Your task to perform on an android device: Search for Italian restaurants on Maps Image 0: 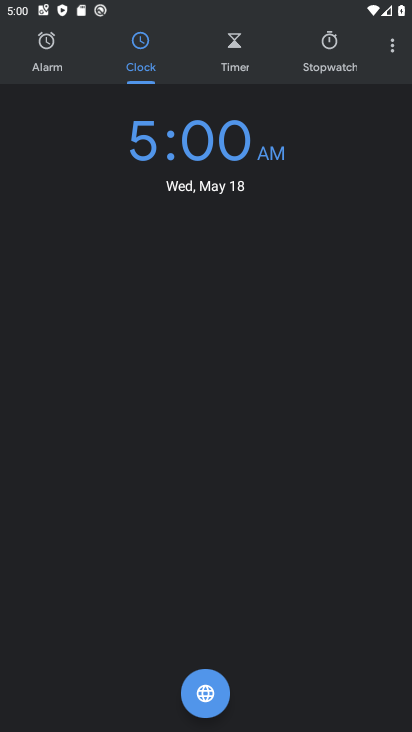
Step 0: press home button
Your task to perform on an android device: Search for Italian restaurants on Maps Image 1: 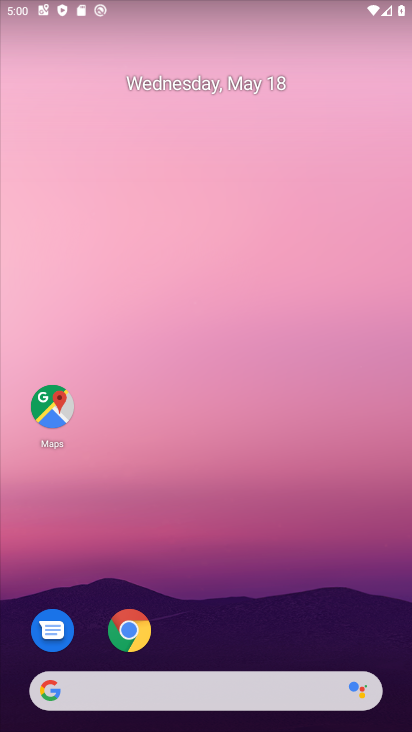
Step 1: drag from (192, 675) to (211, 260)
Your task to perform on an android device: Search for Italian restaurants on Maps Image 2: 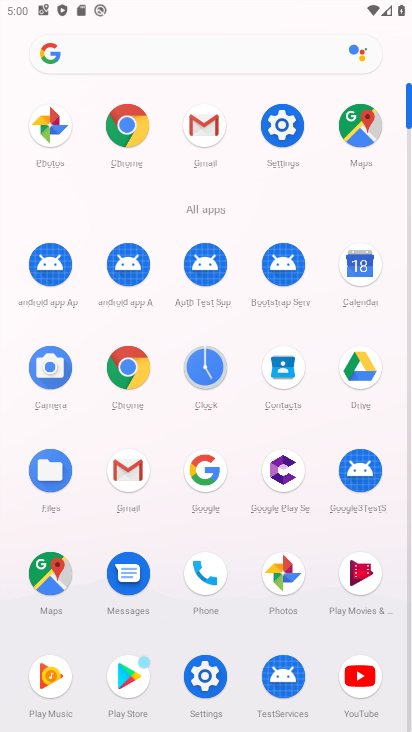
Step 2: click (50, 581)
Your task to perform on an android device: Search for Italian restaurants on Maps Image 3: 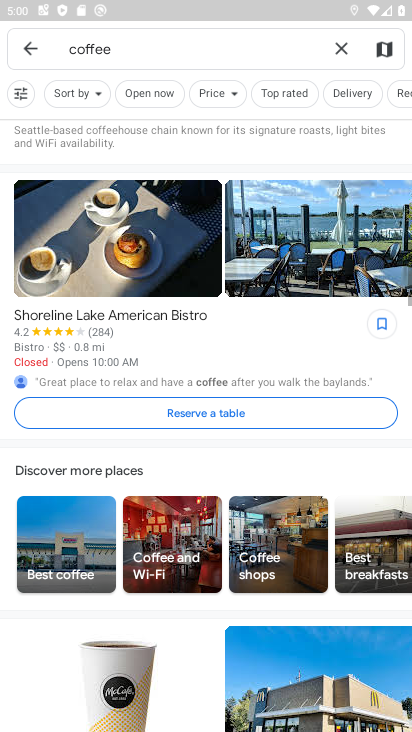
Step 3: click (336, 50)
Your task to perform on an android device: Search for Italian restaurants on Maps Image 4: 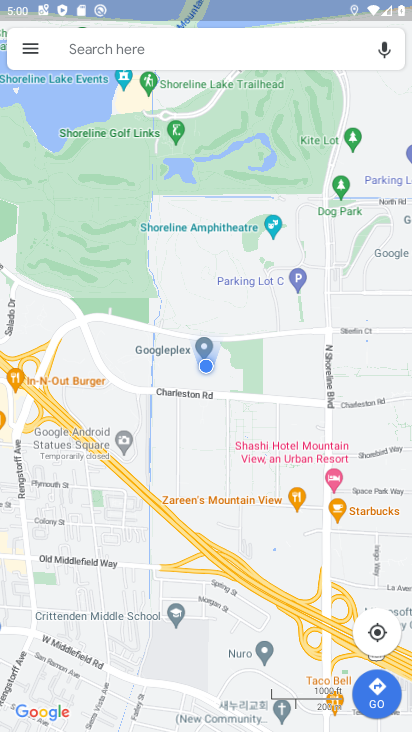
Step 4: click (117, 46)
Your task to perform on an android device: Search for Italian restaurants on Maps Image 5: 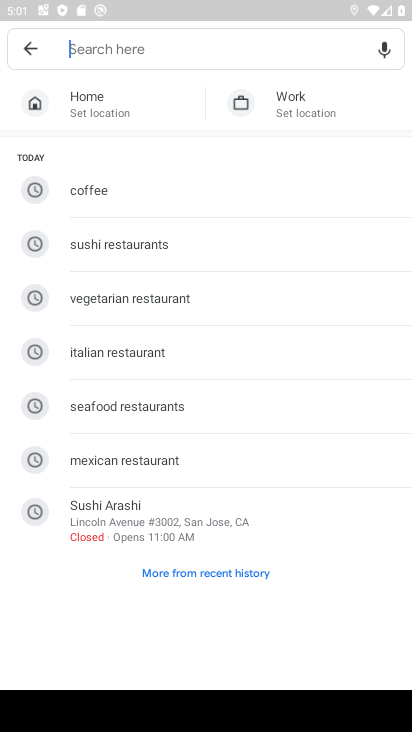
Step 5: type "italian restaurants"
Your task to perform on an android device: Search for Italian restaurants on Maps Image 6: 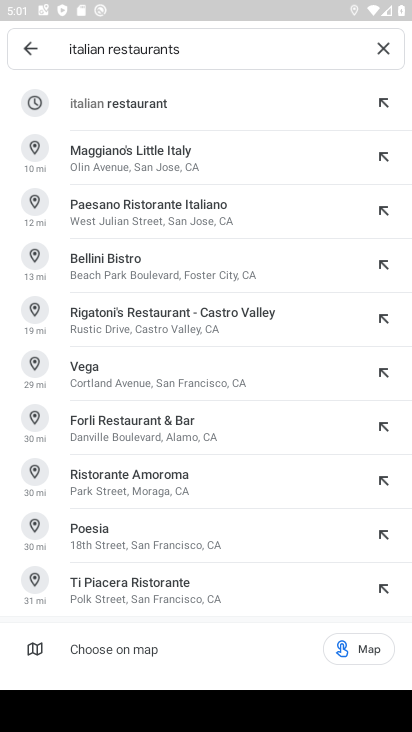
Step 6: click (152, 102)
Your task to perform on an android device: Search for Italian restaurants on Maps Image 7: 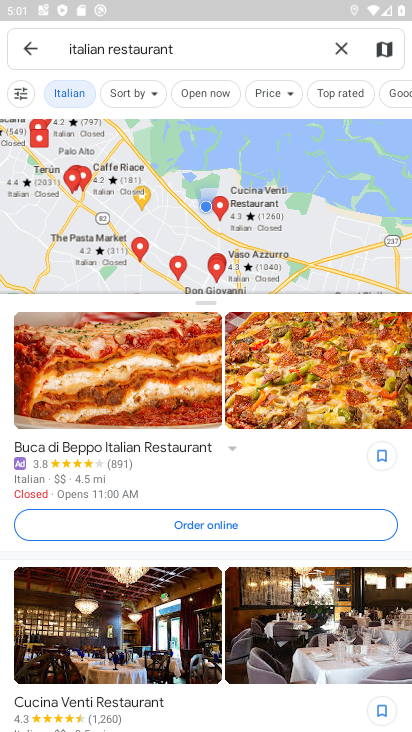
Step 7: task complete